Your task to perform on an android device: set the timer Image 0: 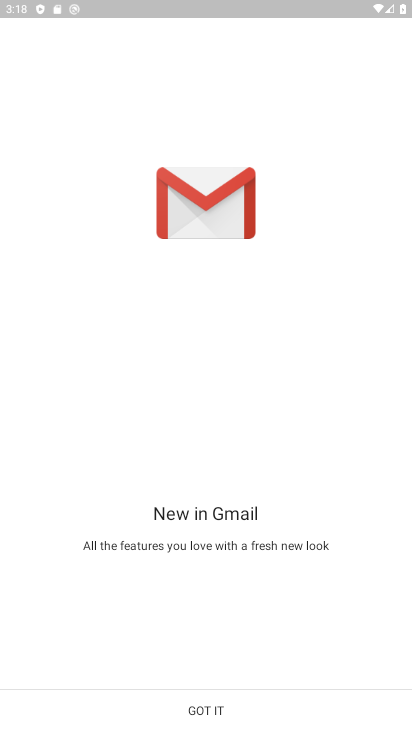
Step 0: press back button
Your task to perform on an android device: set the timer Image 1: 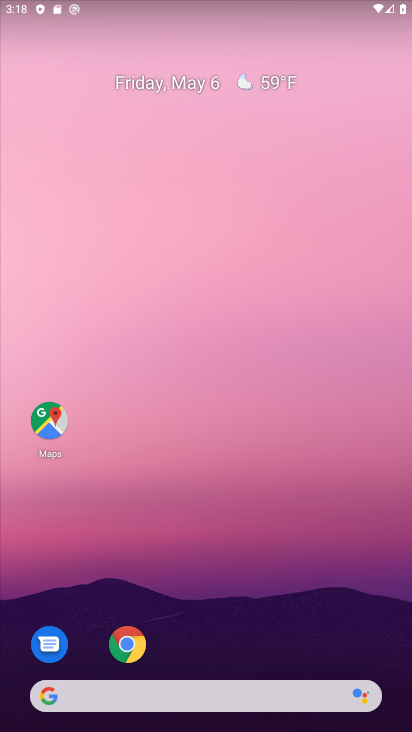
Step 1: drag from (231, 569) to (172, 18)
Your task to perform on an android device: set the timer Image 2: 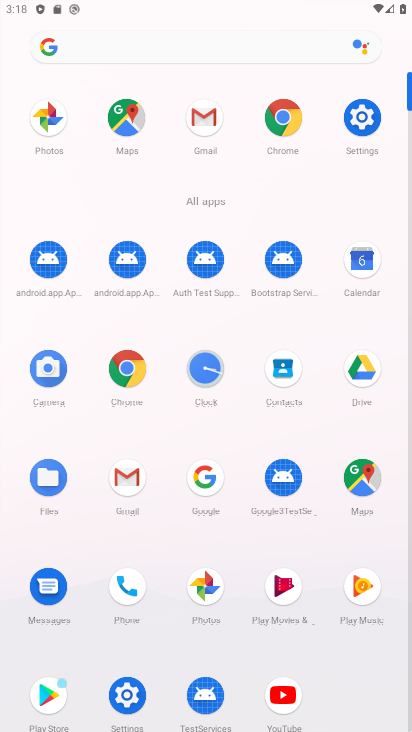
Step 2: click (206, 371)
Your task to perform on an android device: set the timer Image 3: 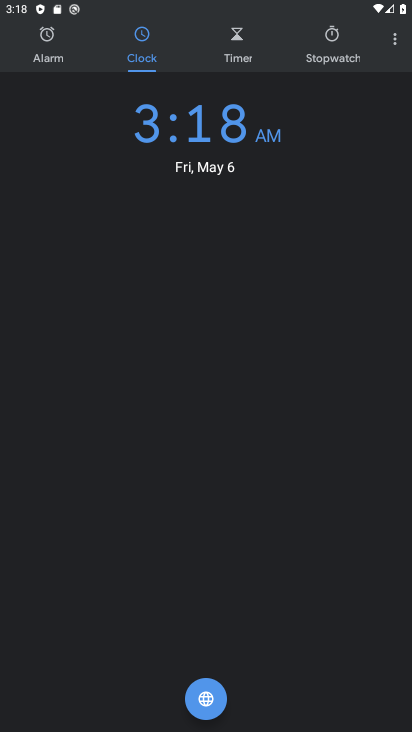
Step 3: click (237, 37)
Your task to perform on an android device: set the timer Image 4: 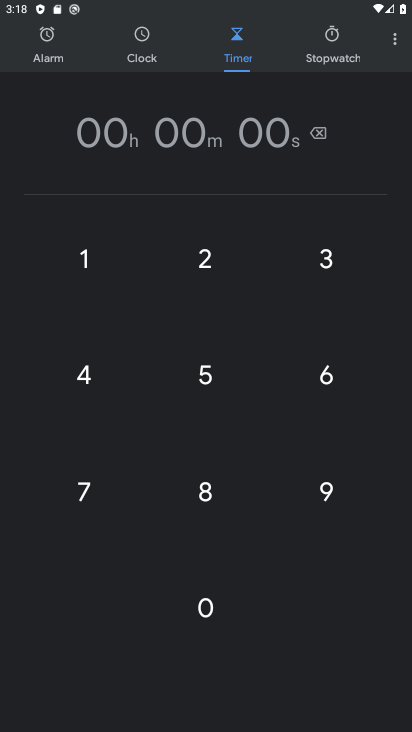
Step 4: type "123"
Your task to perform on an android device: set the timer Image 5: 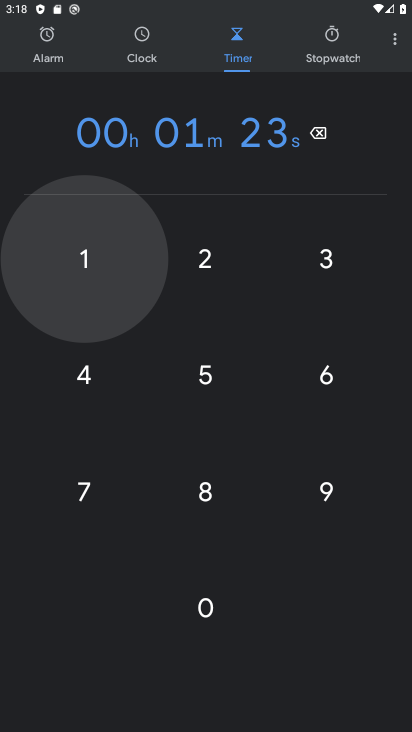
Step 5: type ""
Your task to perform on an android device: set the timer Image 6: 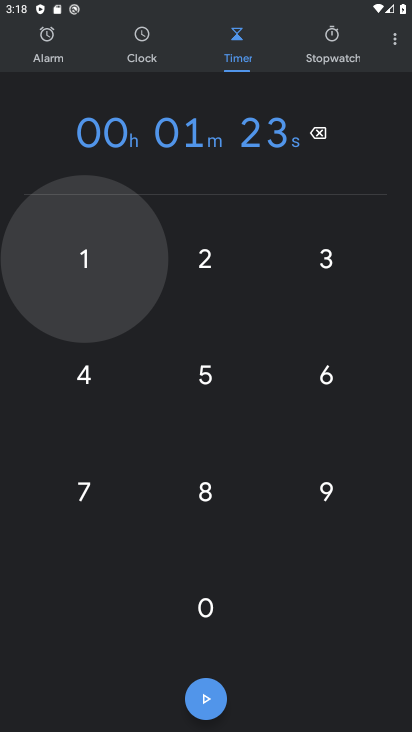
Step 6: click (209, 696)
Your task to perform on an android device: set the timer Image 7: 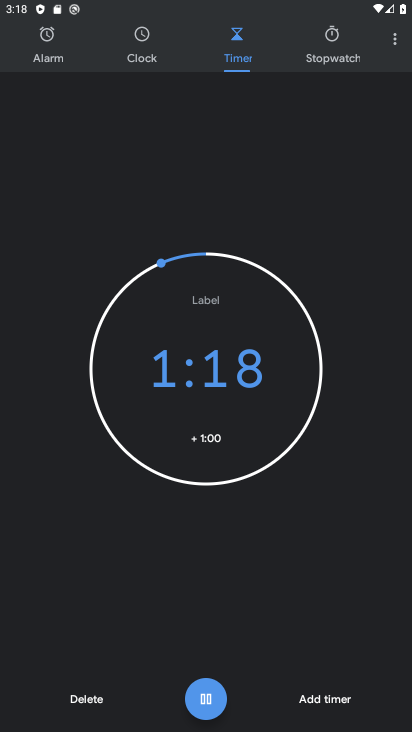
Step 7: click (209, 696)
Your task to perform on an android device: set the timer Image 8: 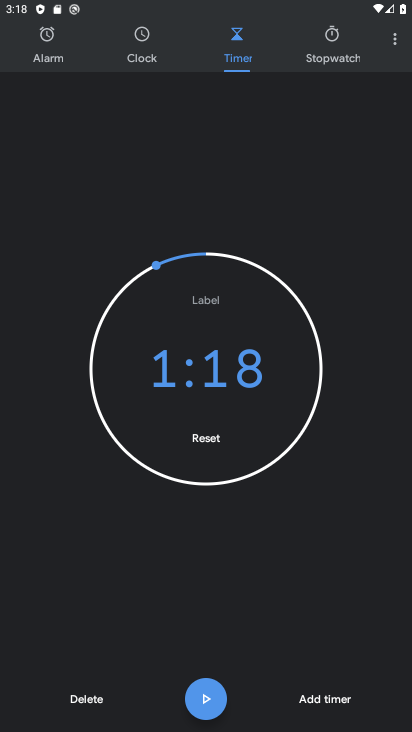
Step 8: task complete